Your task to perform on an android device: visit the assistant section in the google photos Image 0: 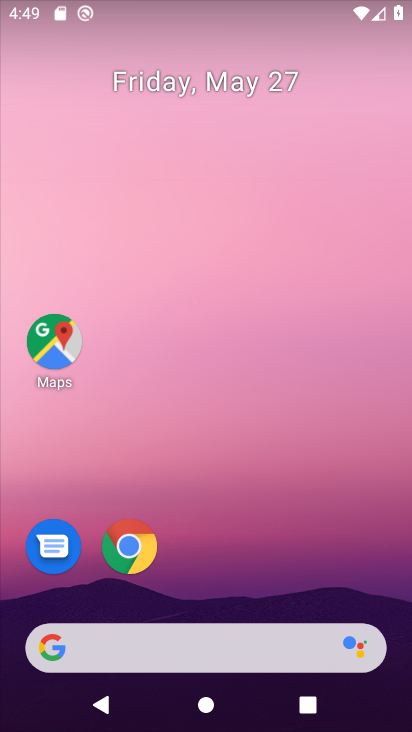
Step 0: drag from (275, 546) to (249, 29)
Your task to perform on an android device: visit the assistant section in the google photos Image 1: 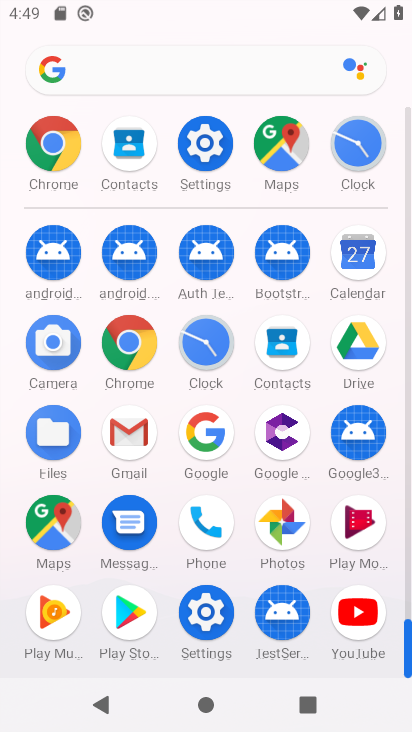
Step 1: drag from (1, 407) to (1, 218)
Your task to perform on an android device: visit the assistant section in the google photos Image 2: 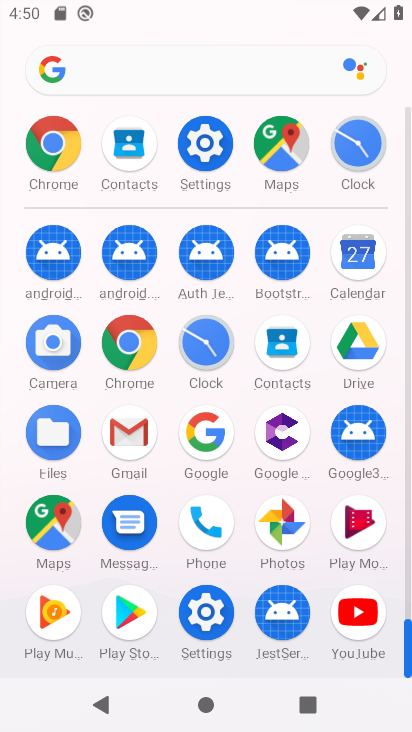
Step 2: click (278, 518)
Your task to perform on an android device: visit the assistant section in the google photos Image 3: 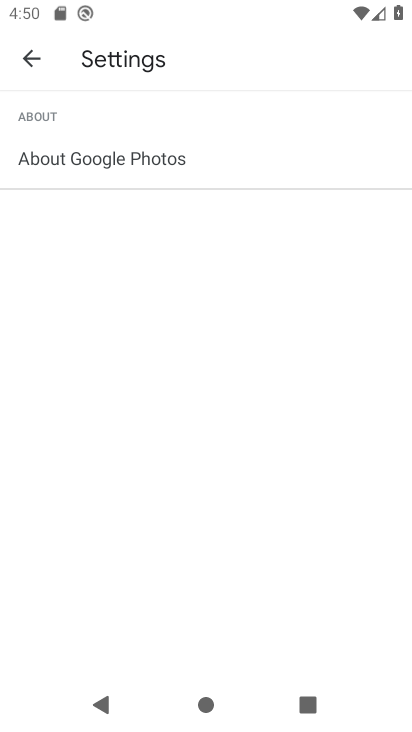
Step 3: click (39, 71)
Your task to perform on an android device: visit the assistant section in the google photos Image 4: 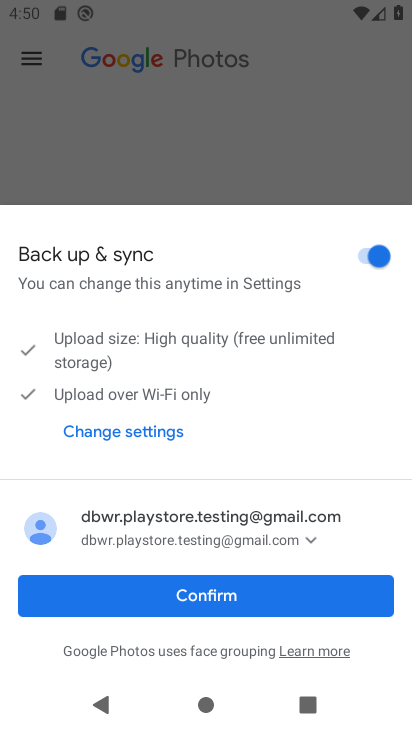
Step 4: click (248, 600)
Your task to perform on an android device: visit the assistant section in the google photos Image 5: 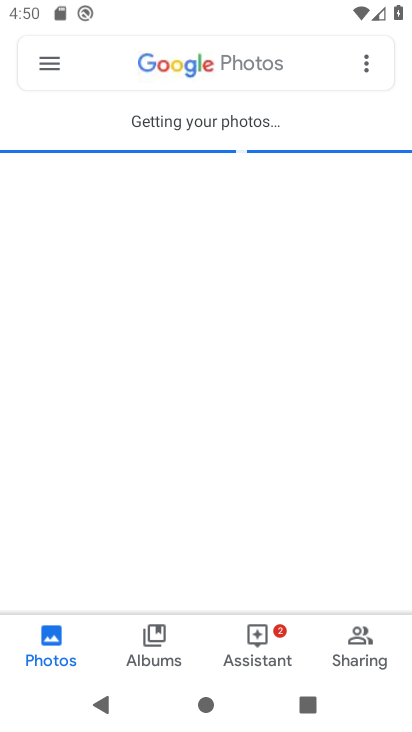
Step 5: click (260, 640)
Your task to perform on an android device: visit the assistant section in the google photos Image 6: 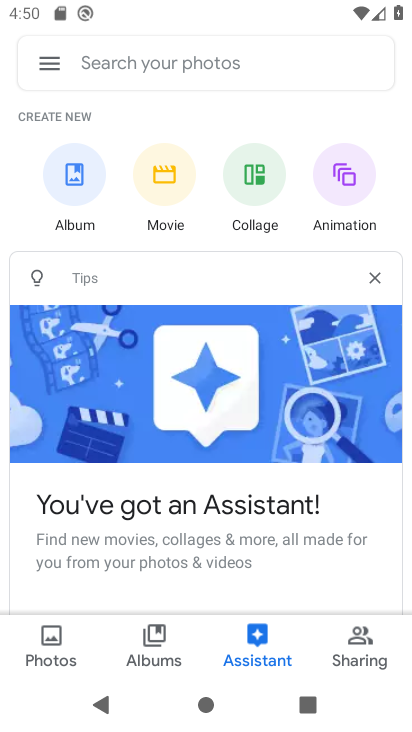
Step 6: task complete